Your task to perform on an android device: Is it going to rain this weekend? Image 0: 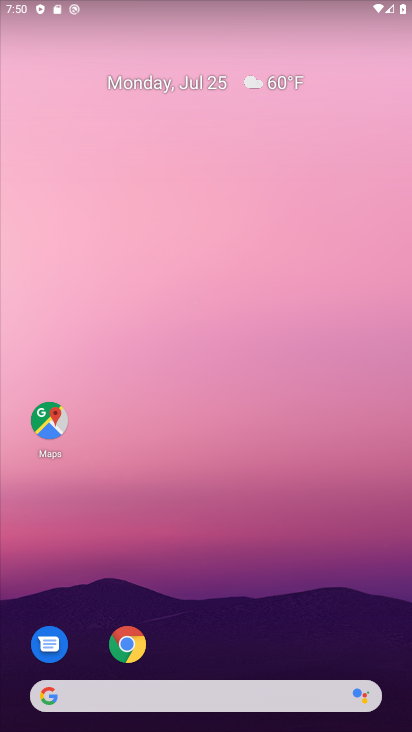
Step 0: click (261, 695)
Your task to perform on an android device: Is it going to rain this weekend? Image 1: 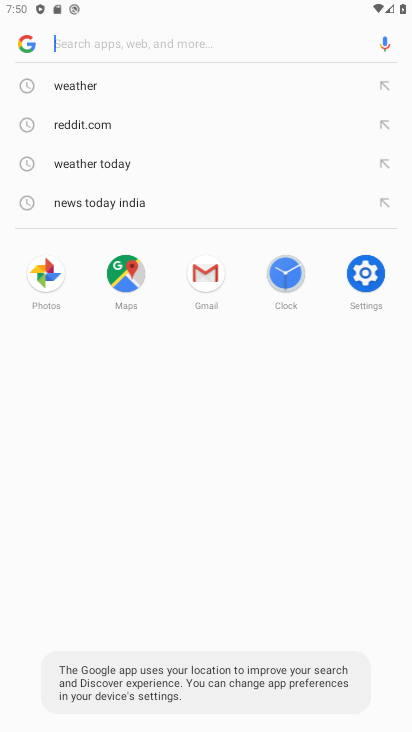
Step 1: type ""
Your task to perform on an android device: Is it going to rain this weekend? Image 2: 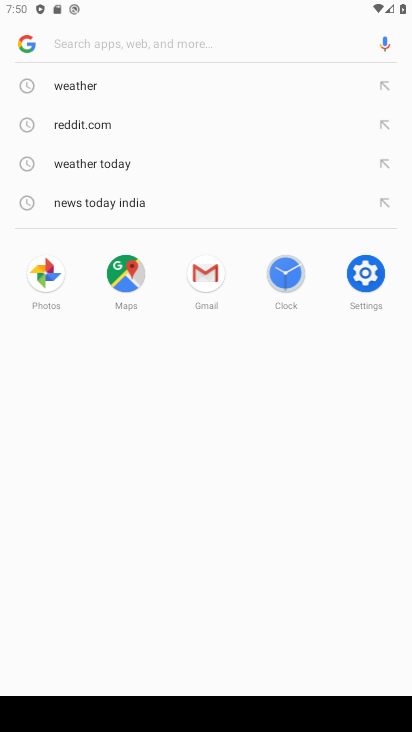
Step 2: type "Is it going to rain this weekend?"
Your task to perform on an android device: Is it going to rain this weekend? Image 3: 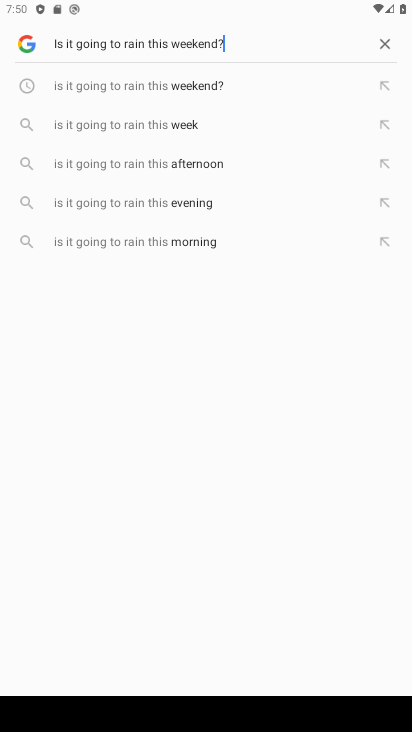
Step 3: click (127, 45)
Your task to perform on an android device: Is it going to rain this weekend? Image 4: 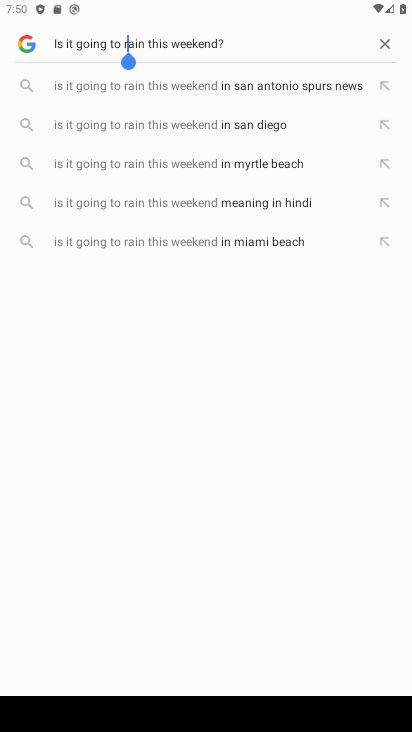
Step 4: type "Is it going to rain this weekend?"
Your task to perform on an android device: Is it going to rain this weekend? Image 5: 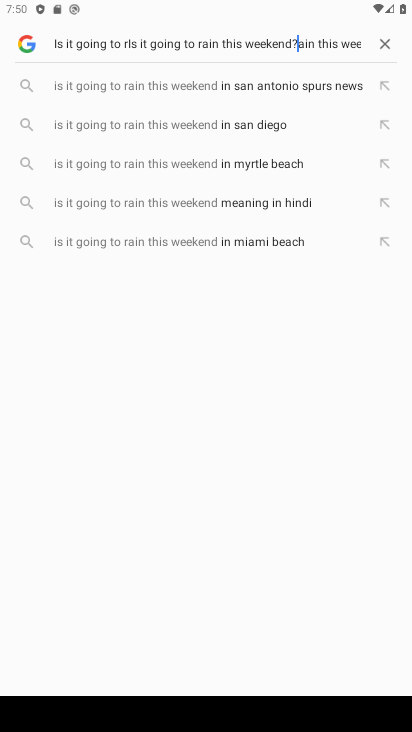
Step 5: press enter
Your task to perform on an android device: Is it going to rain this weekend? Image 6: 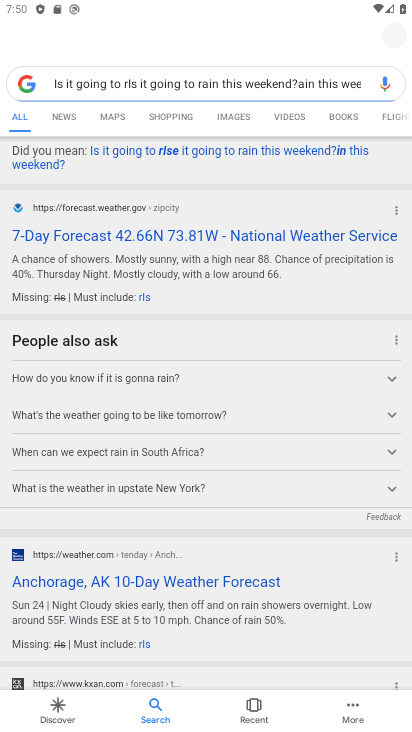
Step 6: task complete